Your task to perform on an android device: turn on sleep mode Image 0: 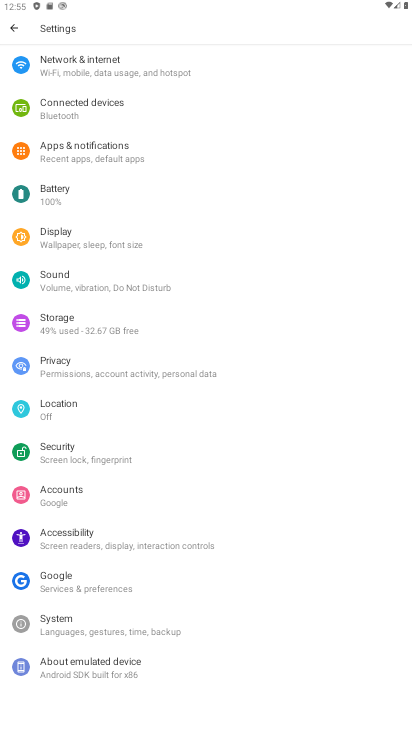
Step 0: press home button
Your task to perform on an android device: turn on sleep mode Image 1: 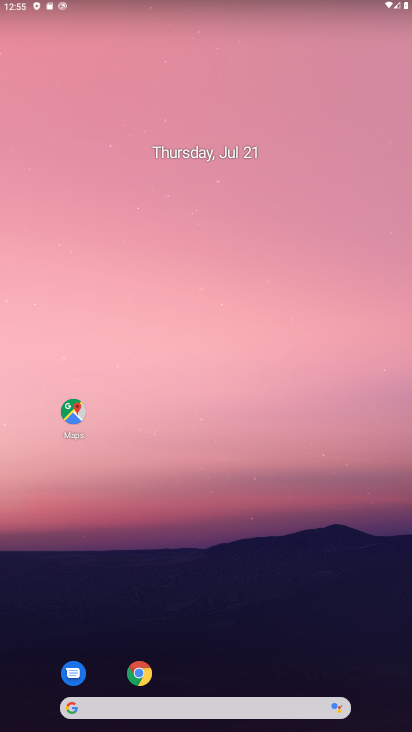
Step 1: drag from (222, 704) to (199, 99)
Your task to perform on an android device: turn on sleep mode Image 2: 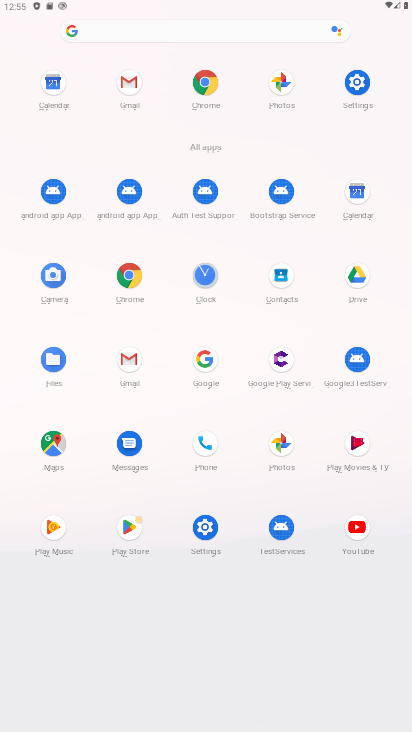
Step 2: click (359, 90)
Your task to perform on an android device: turn on sleep mode Image 3: 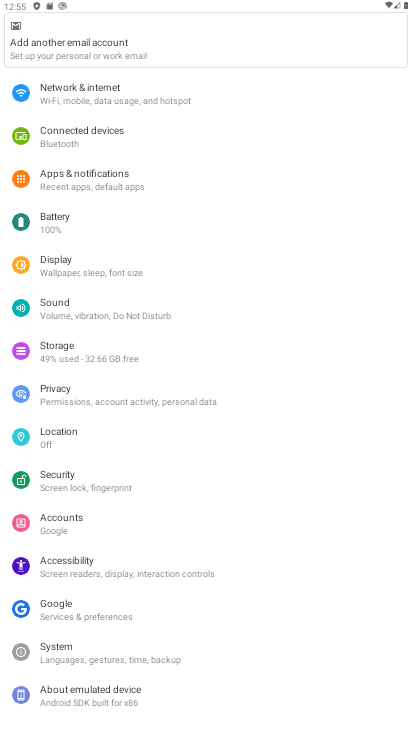
Step 3: click (55, 271)
Your task to perform on an android device: turn on sleep mode Image 4: 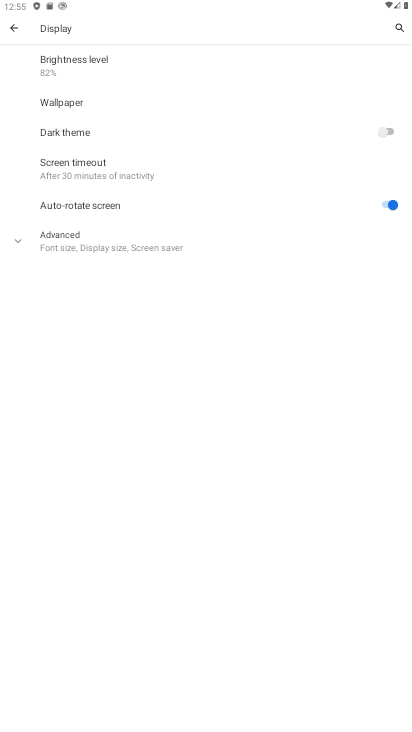
Step 4: click (65, 251)
Your task to perform on an android device: turn on sleep mode Image 5: 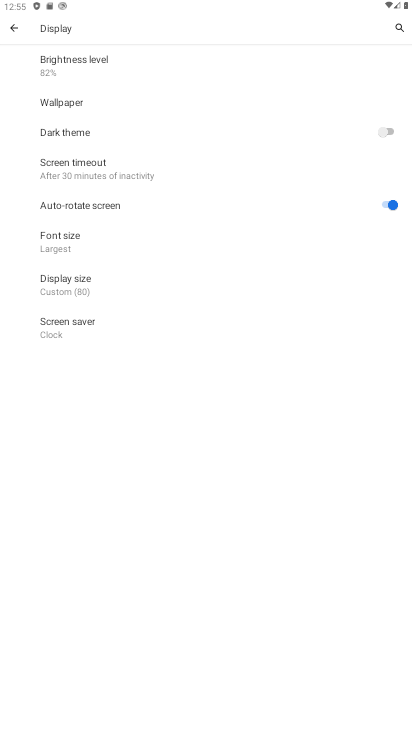
Step 5: task complete